Your task to perform on an android device: Go to CNN.com Image 0: 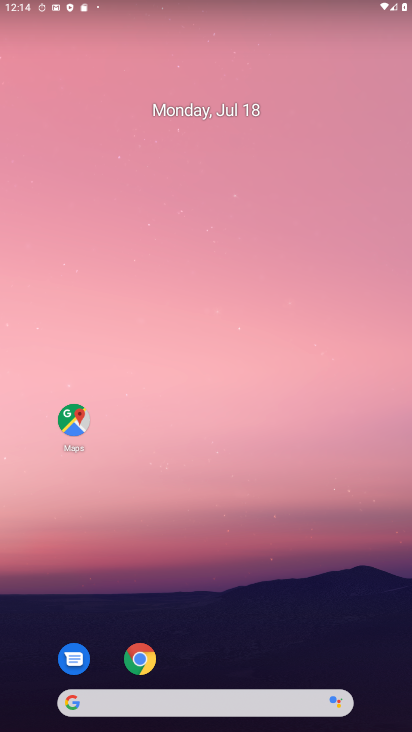
Step 0: click (143, 666)
Your task to perform on an android device: Go to CNN.com Image 1: 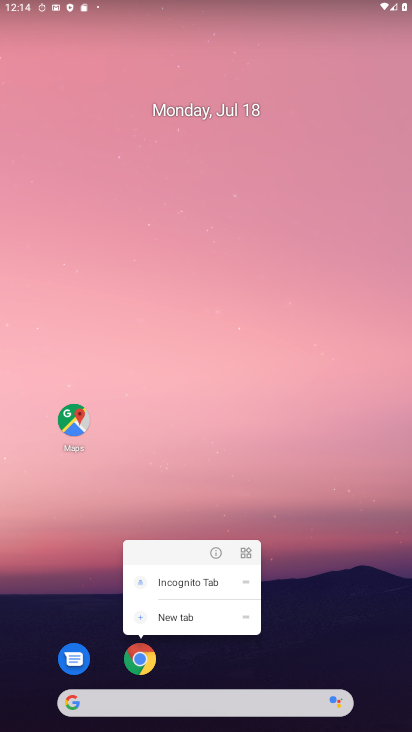
Step 1: click (140, 661)
Your task to perform on an android device: Go to CNN.com Image 2: 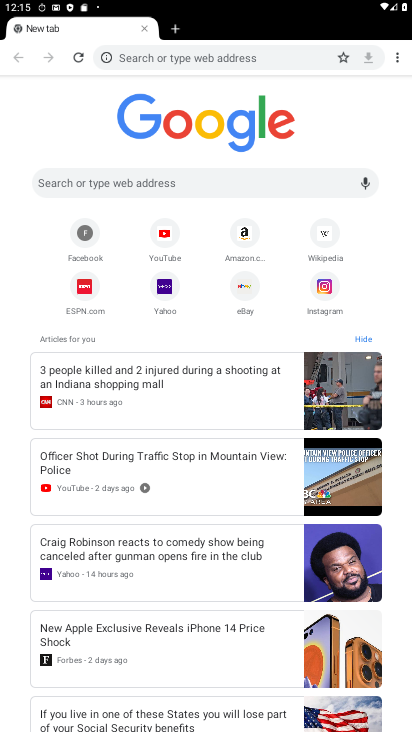
Step 2: click (207, 181)
Your task to perform on an android device: Go to CNN.com Image 3: 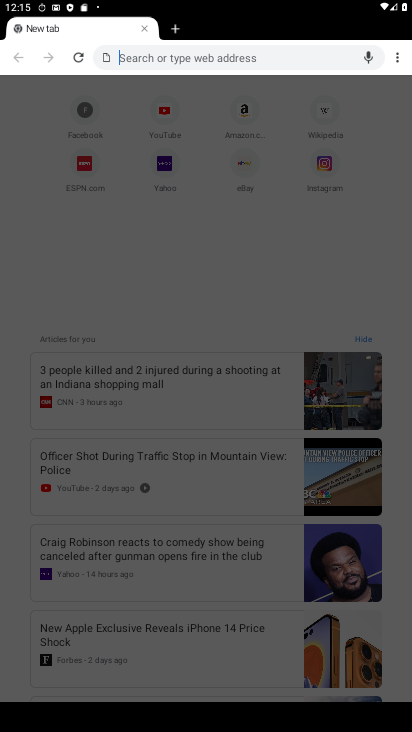
Step 3: type "CNN.com"
Your task to perform on an android device: Go to CNN.com Image 4: 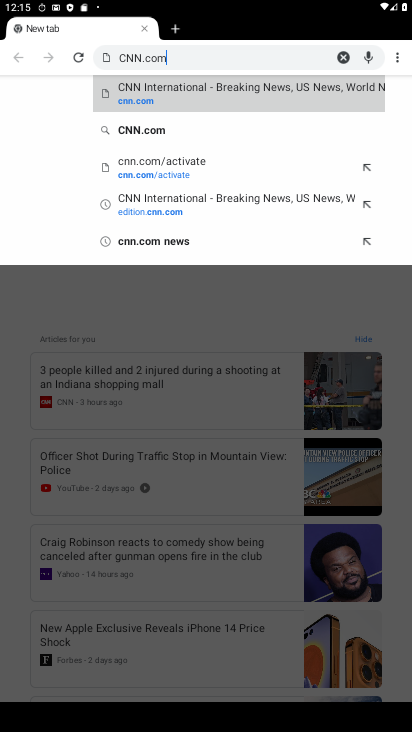
Step 4: click (161, 96)
Your task to perform on an android device: Go to CNN.com Image 5: 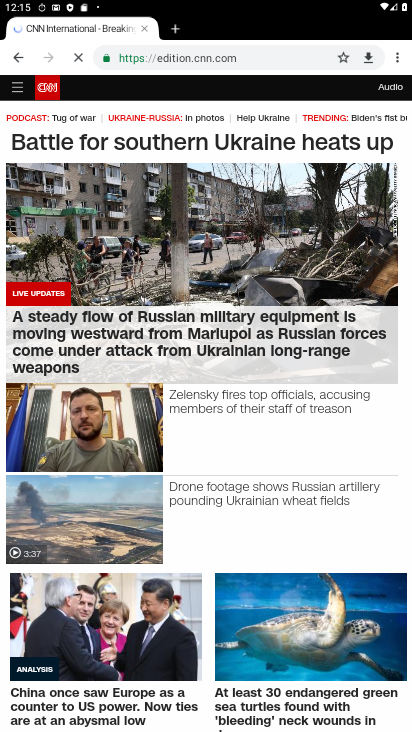
Step 5: task complete